Your task to perform on an android device: turn pop-ups on in chrome Image 0: 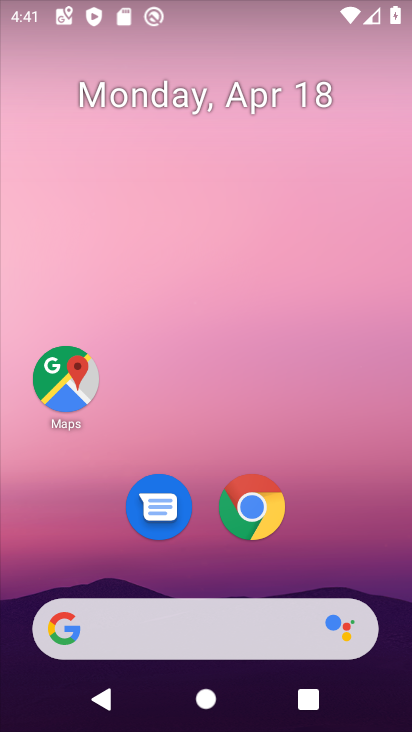
Step 0: click (269, 505)
Your task to perform on an android device: turn pop-ups on in chrome Image 1: 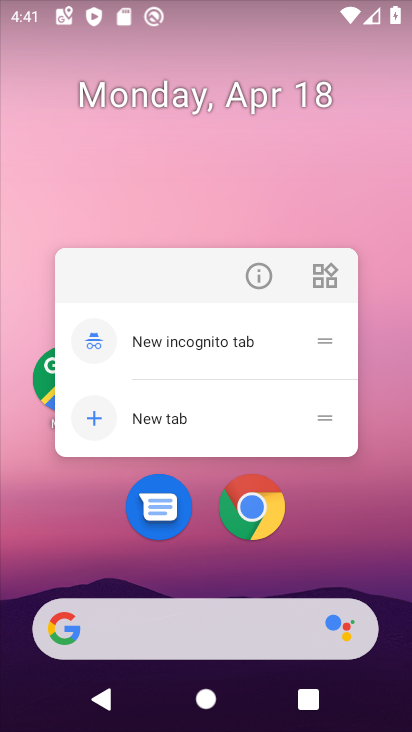
Step 1: drag from (304, 496) to (274, 118)
Your task to perform on an android device: turn pop-ups on in chrome Image 2: 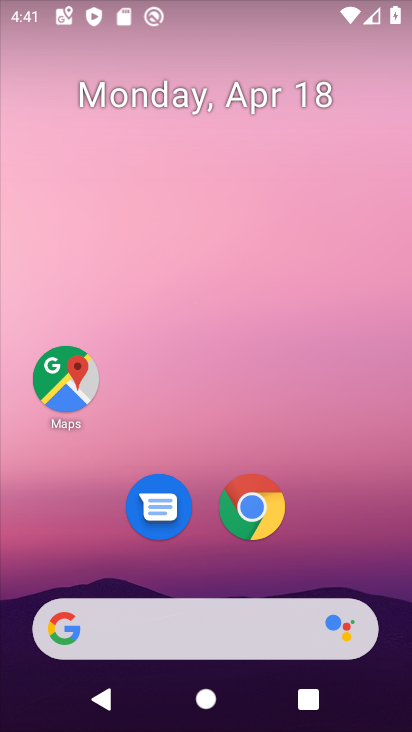
Step 2: drag from (320, 546) to (335, 58)
Your task to perform on an android device: turn pop-ups on in chrome Image 3: 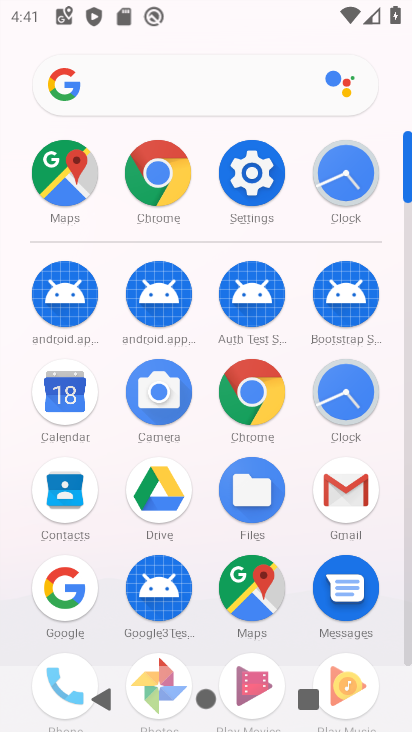
Step 3: click (262, 393)
Your task to perform on an android device: turn pop-ups on in chrome Image 4: 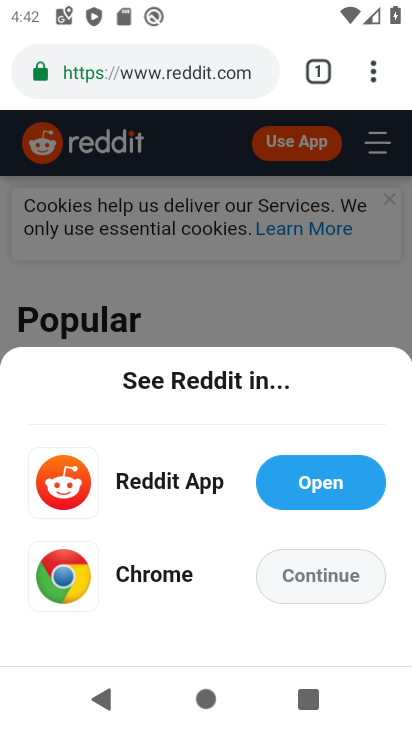
Step 4: click (359, 72)
Your task to perform on an android device: turn pop-ups on in chrome Image 5: 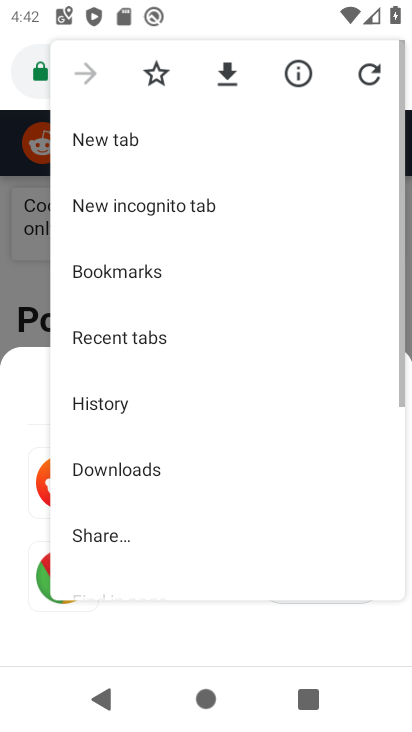
Step 5: drag from (228, 579) to (221, 207)
Your task to perform on an android device: turn pop-ups on in chrome Image 6: 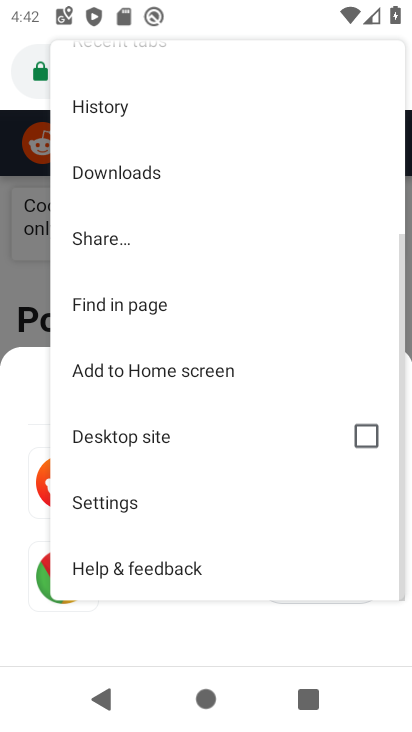
Step 6: click (142, 509)
Your task to perform on an android device: turn pop-ups on in chrome Image 7: 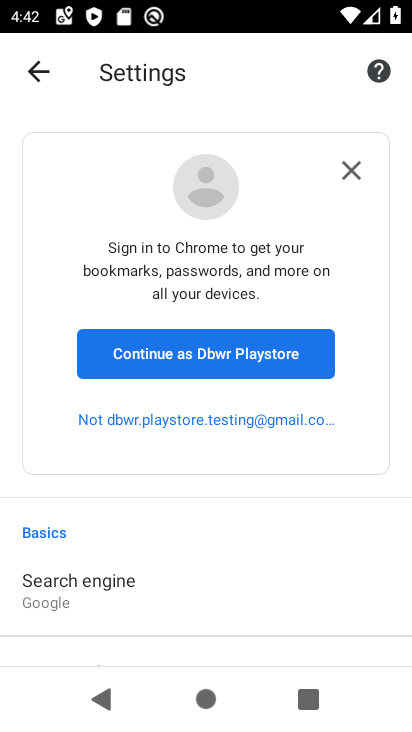
Step 7: drag from (167, 634) to (112, 208)
Your task to perform on an android device: turn pop-ups on in chrome Image 8: 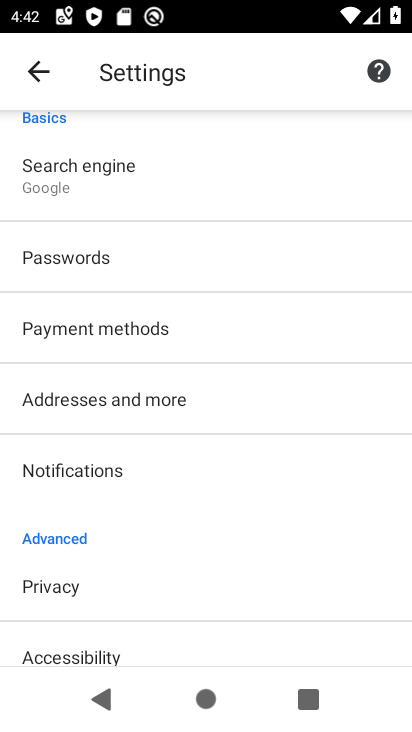
Step 8: drag from (185, 593) to (237, 270)
Your task to perform on an android device: turn pop-ups on in chrome Image 9: 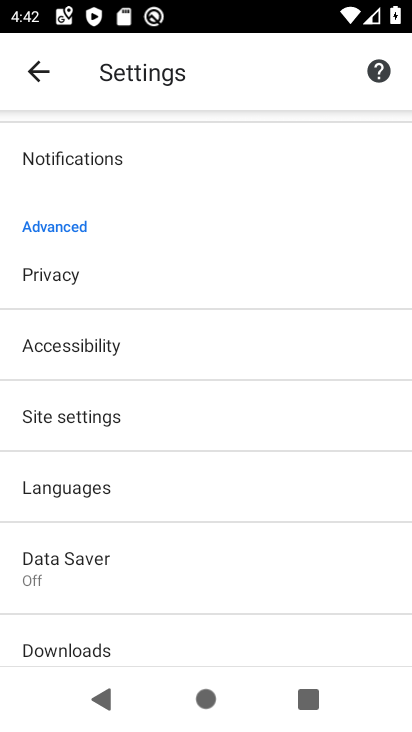
Step 9: click (132, 411)
Your task to perform on an android device: turn pop-ups on in chrome Image 10: 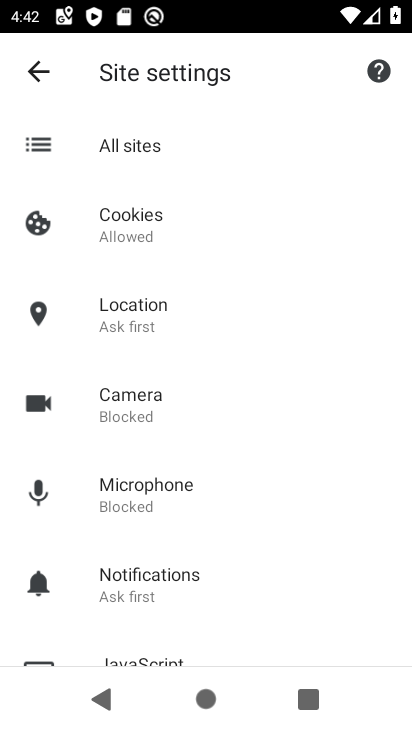
Step 10: drag from (177, 623) to (160, 283)
Your task to perform on an android device: turn pop-ups on in chrome Image 11: 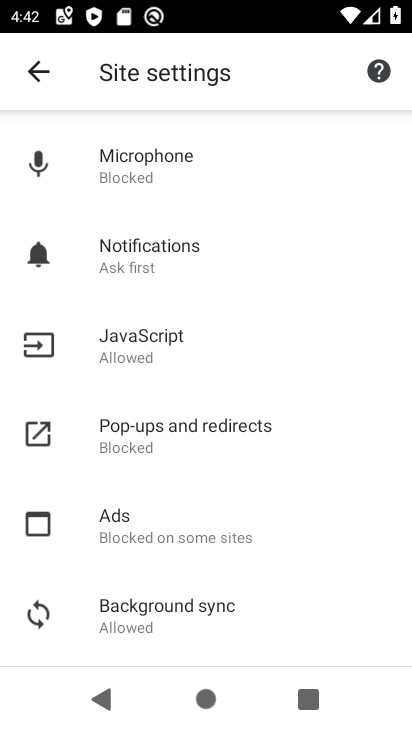
Step 11: click (190, 430)
Your task to perform on an android device: turn pop-ups on in chrome Image 12: 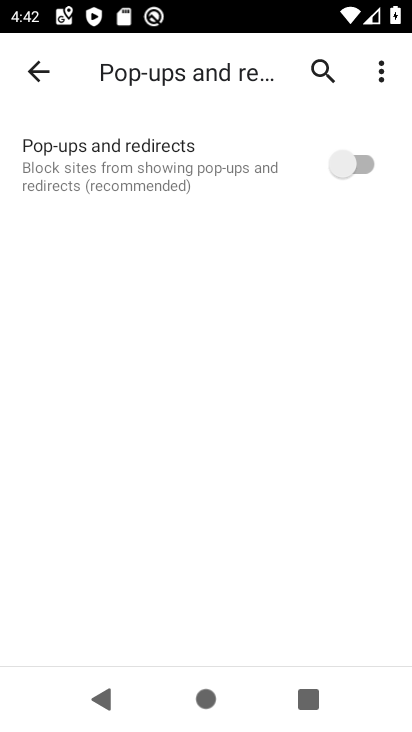
Step 12: click (361, 157)
Your task to perform on an android device: turn pop-ups on in chrome Image 13: 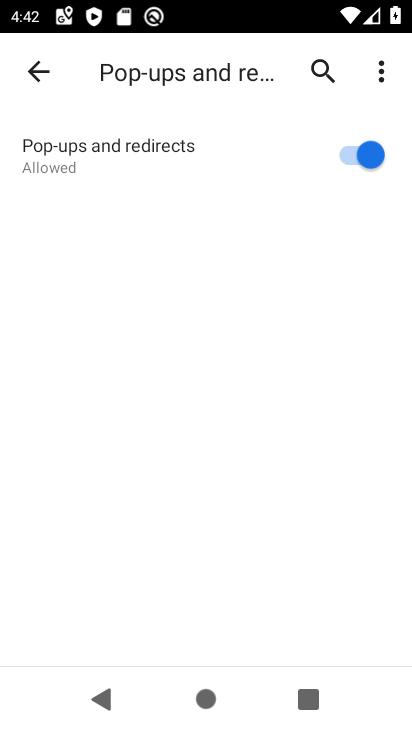
Step 13: task complete